Your task to perform on an android device: Open location settings Image 0: 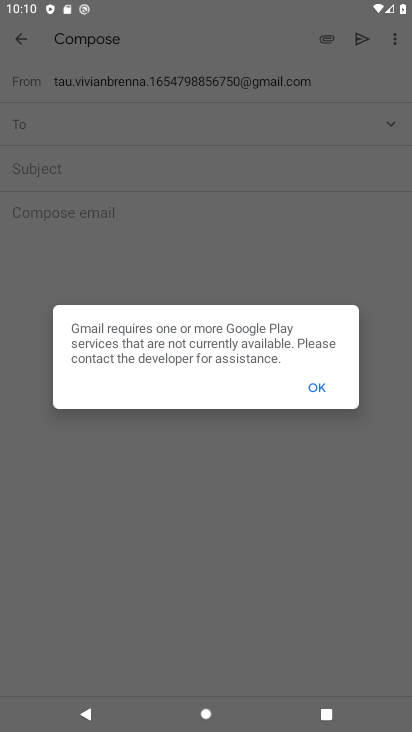
Step 0: press home button
Your task to perform on an android device: Open location settings Image 1: 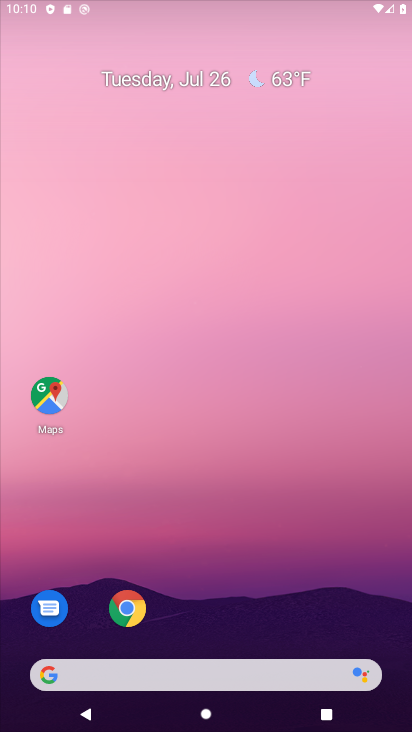
Step 1: drag from (219, 136) to (209, 0)
Your task to perform on an android device: Open location settings Image 2: 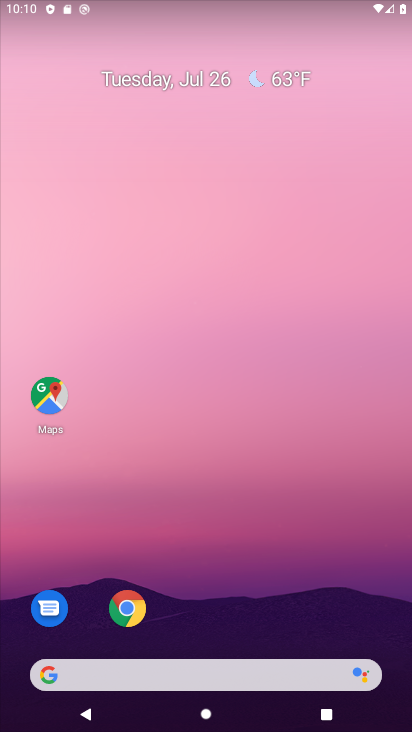
Step 2: drag from (238, 581) to (185, 10)
Your task to perform on an android device: Open location settings Image 3: 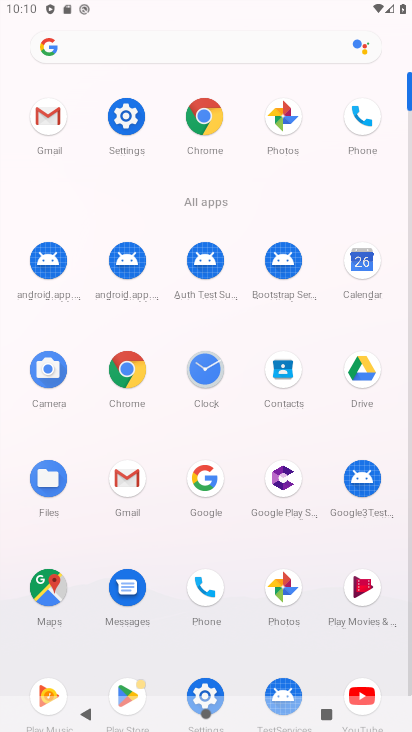
Step 3: click (125, 171)
Your task to perform on an android device: Open location settings Image 4: 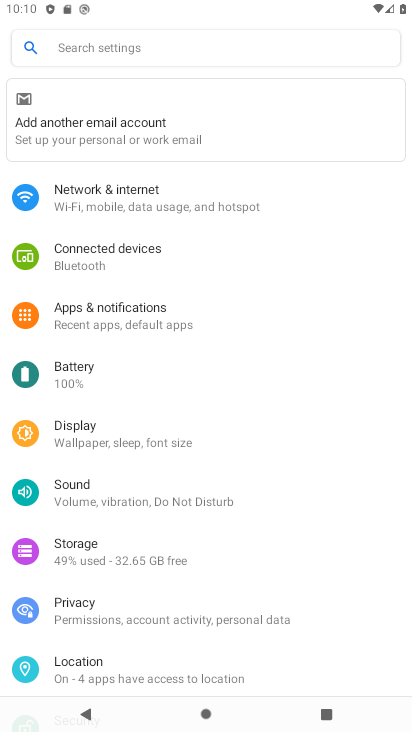
Step 4: click (122, 666)
Your task to perform on an android device: Open location settings Image 5: 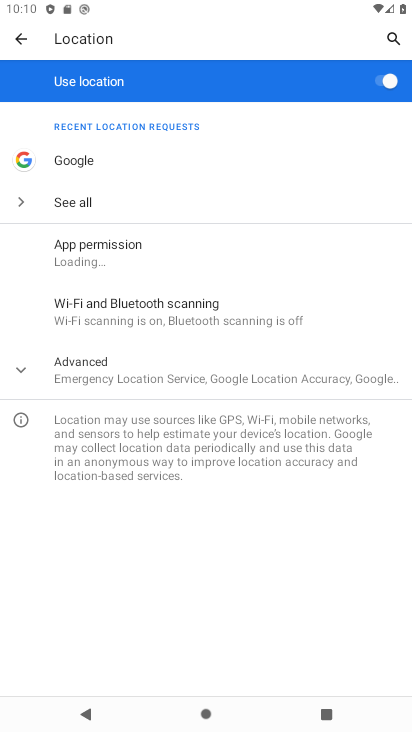
Step 5: task complete